Your task to perform on an android device: Search for usb-c to usb-a on target, select the first entry, add it to the cart, then select checkout. Image 0: 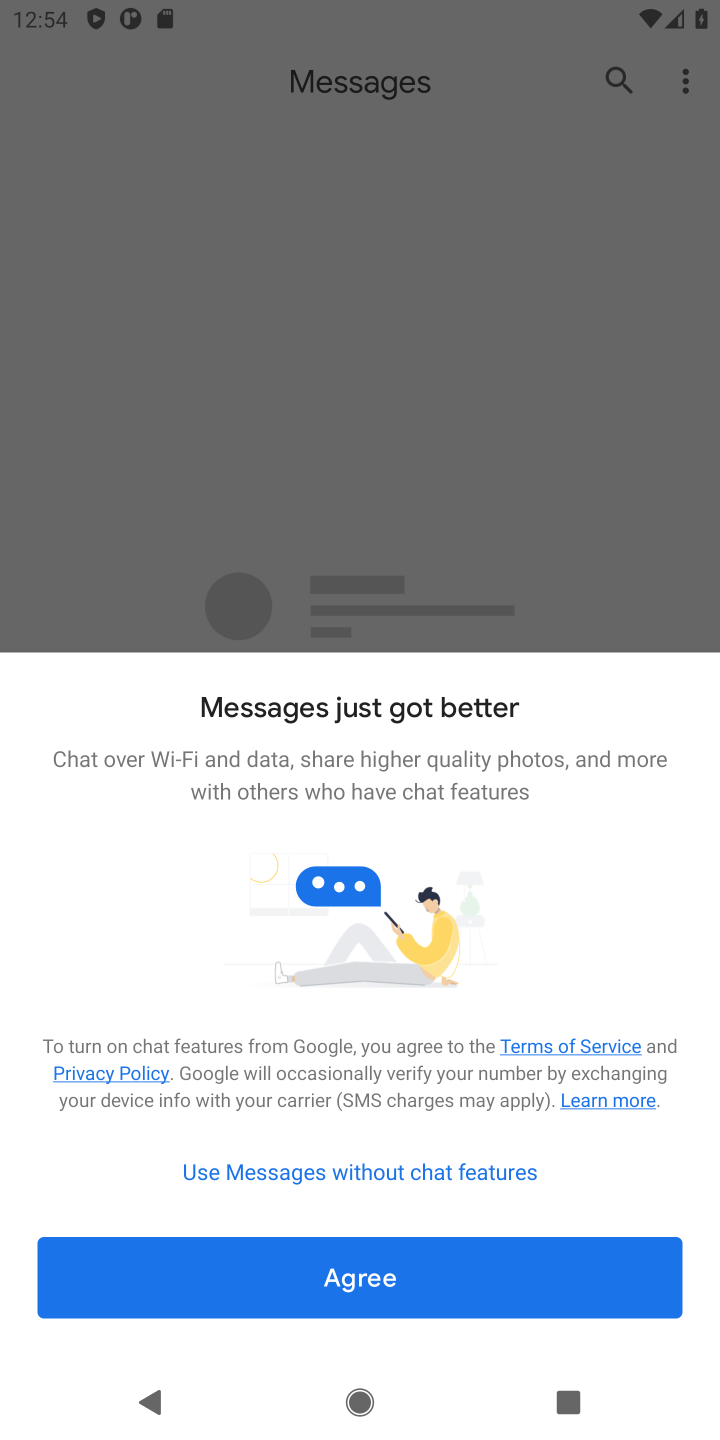
Step 0: press home button
Your task to perform on an android device: Search for usb-c to usb-a on target, select the first entry, add it to the cart, then select checkout. Image 1: 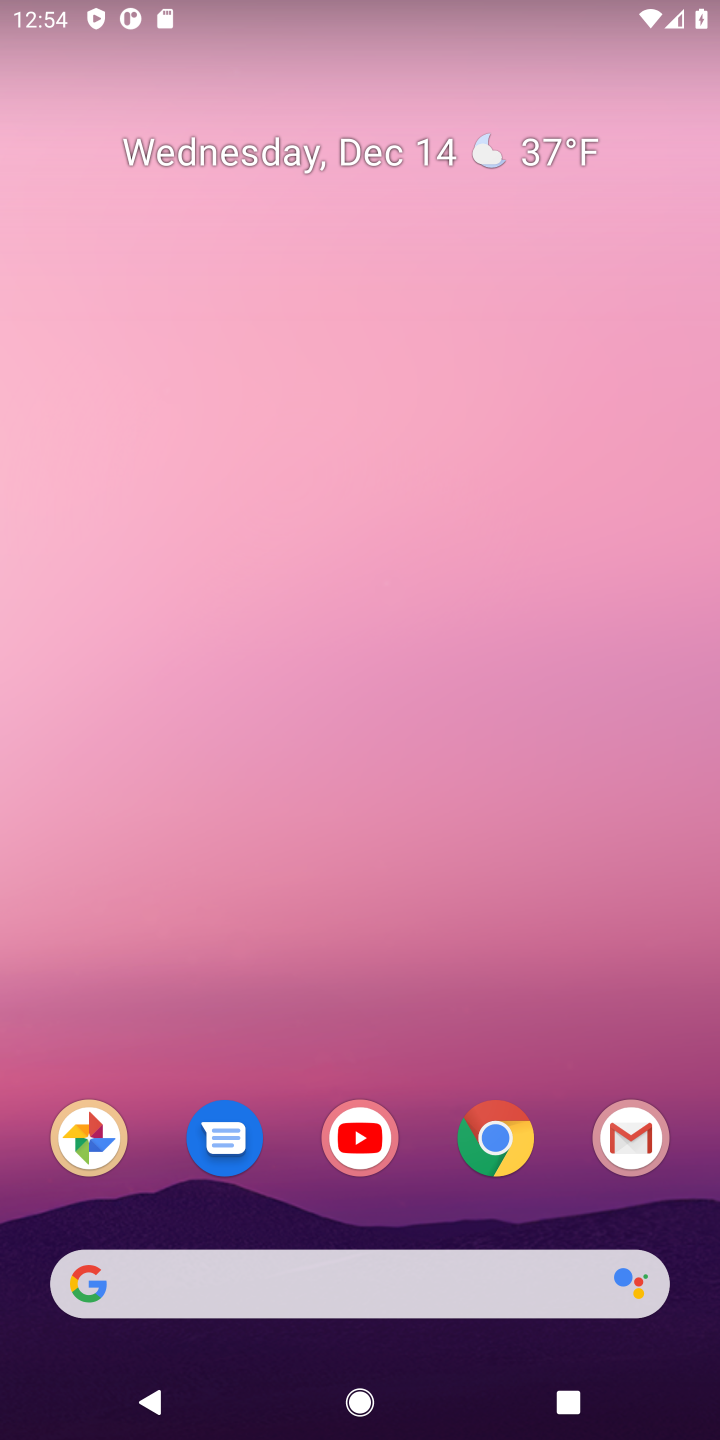
Step 1: click (504, 1147)
Your task to perform on an android device: Search for usb-c to usb-a on target, select the first entry, add it to the cart, then select checkout. Image 2: 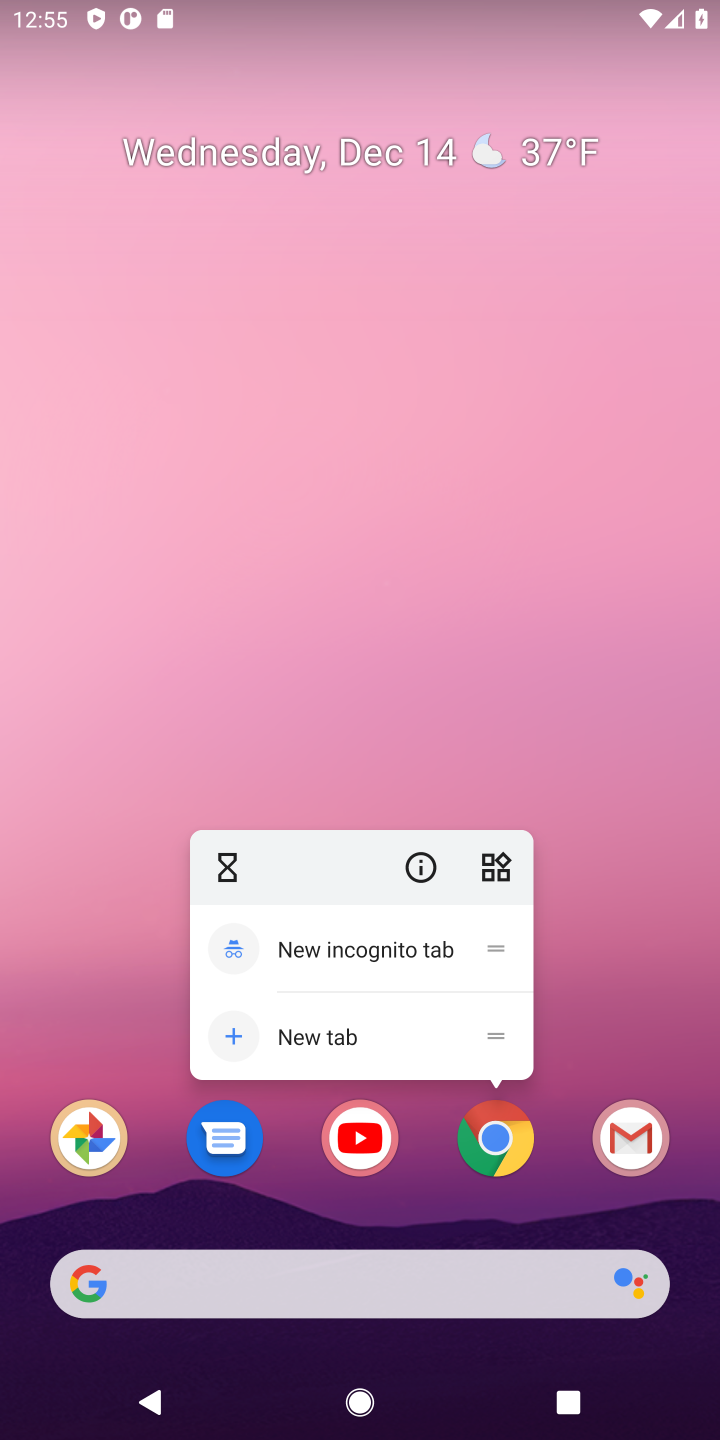
Step 2: click (504, 1147)
Your task to perform on an android device: Search for usb-c to usb-a on target, select the first entry, add it to the cart, then select checkout. Image 3: 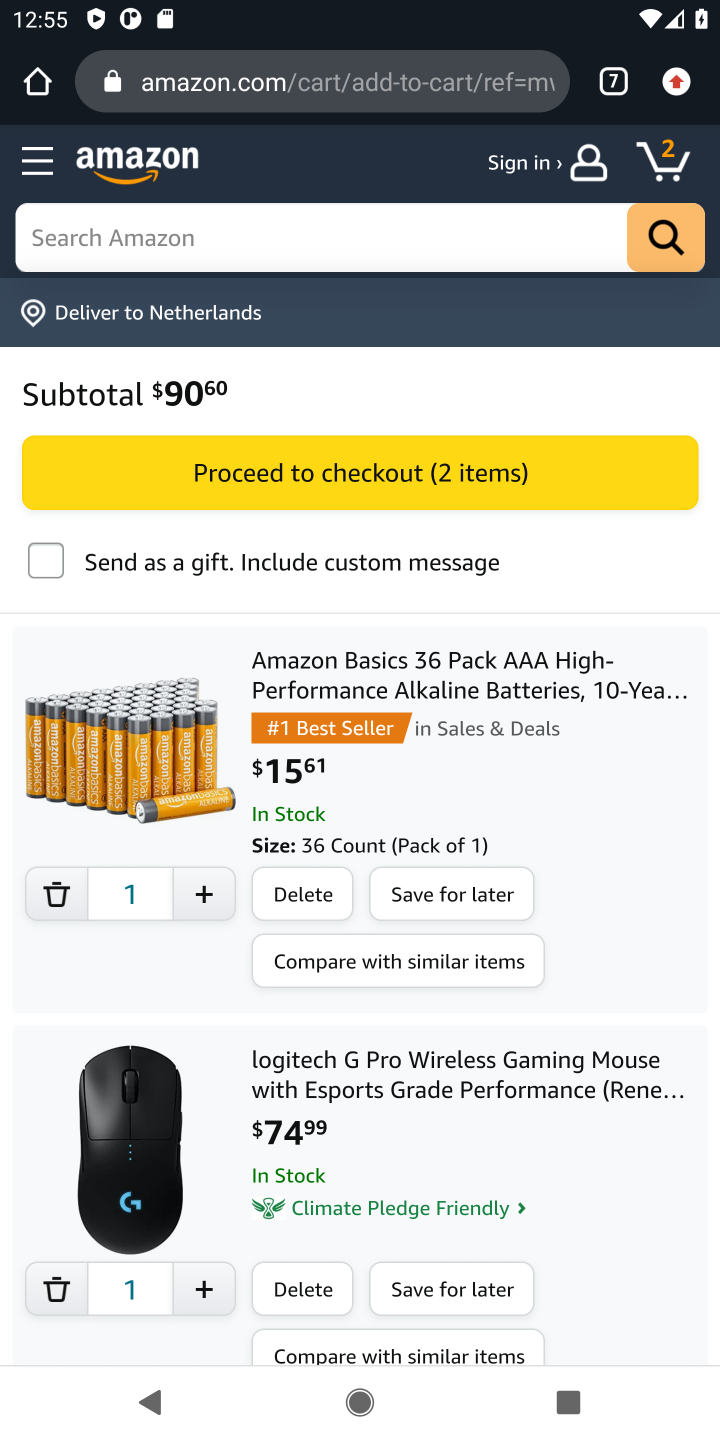
Step 3: click (618, 79)
Your task to perform on an android device: Search for usb-c to usb-a on target, select the first entry, add it to the cart, then select checkout. Image 4: 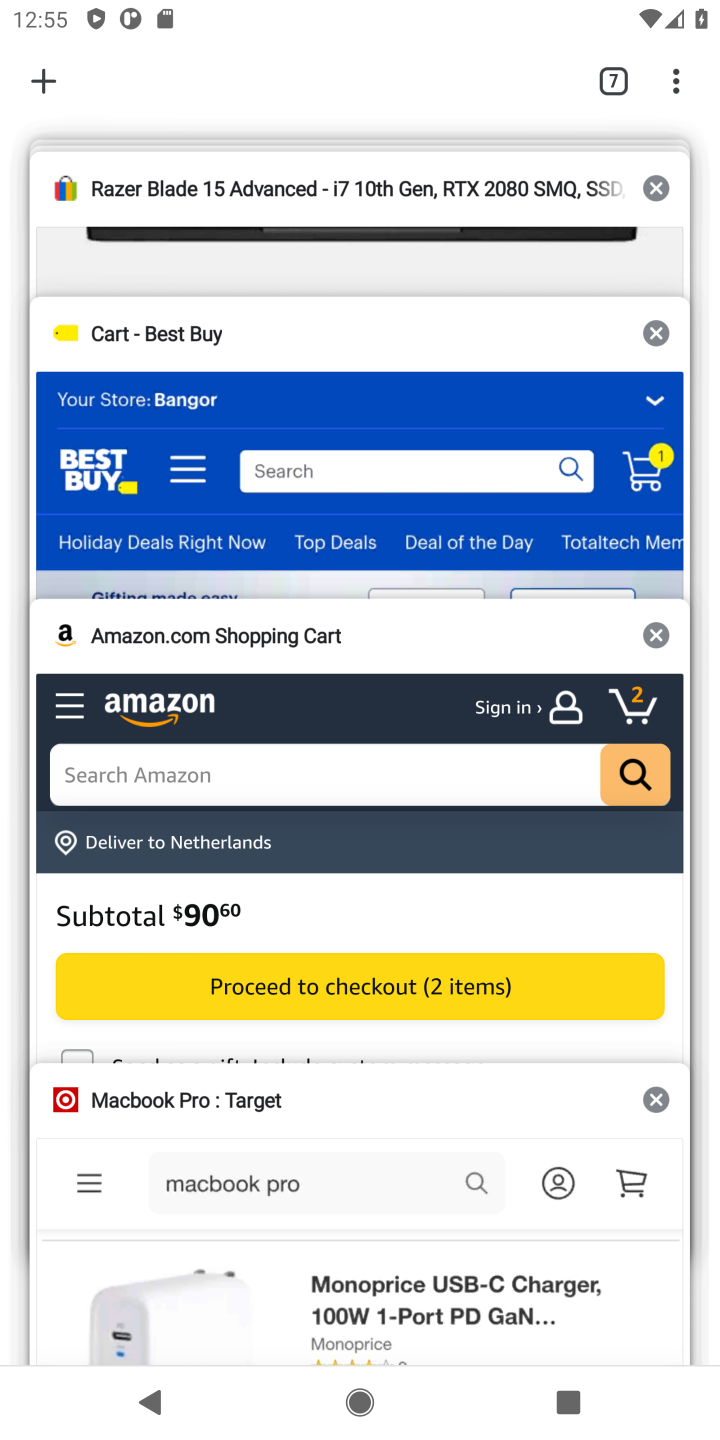
Step 4: click (364, 1285)
Your task to perform on an android device: Search for usb-c to usb-a on target, select the first entry, add it to the cart, then select checkout. Image 5: 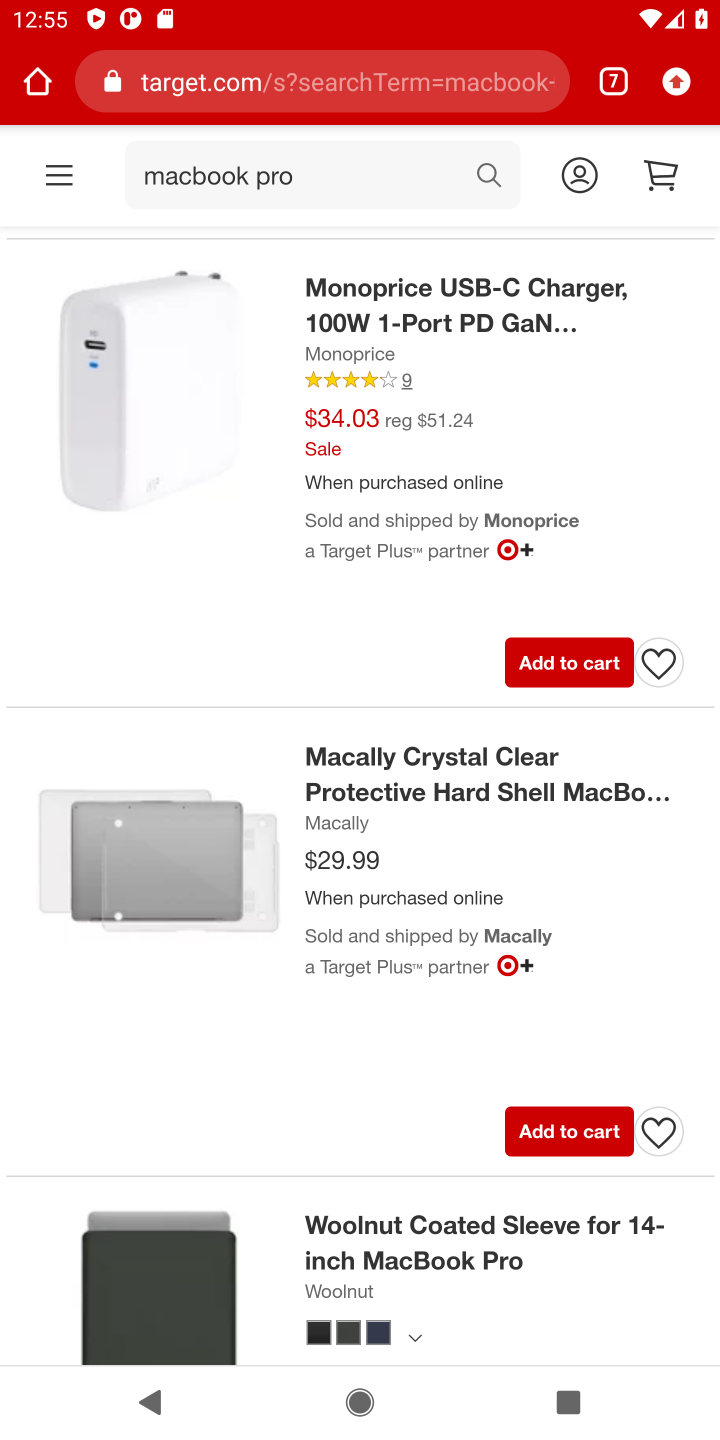
Step 5: click (341, 184)
Your task to perform on an android device: Search for usb-c to usb-a on target, select the first entry, add it to the cart, then select checkout. Image 6: 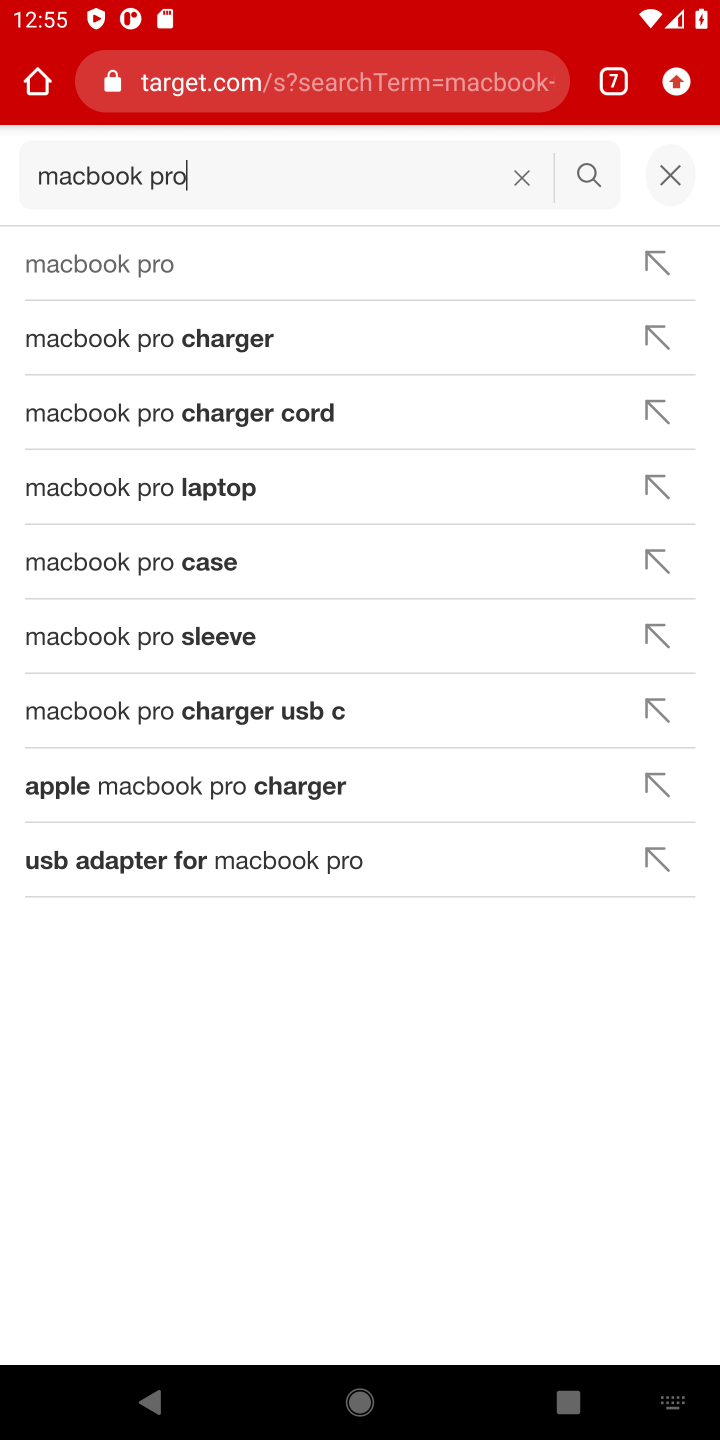
Step 6: click (522, 176)
Your task to perform on an android device: Search for usb-c to usb-a on target, select the first entry, add it to the cart, then select checkout. Image 7: 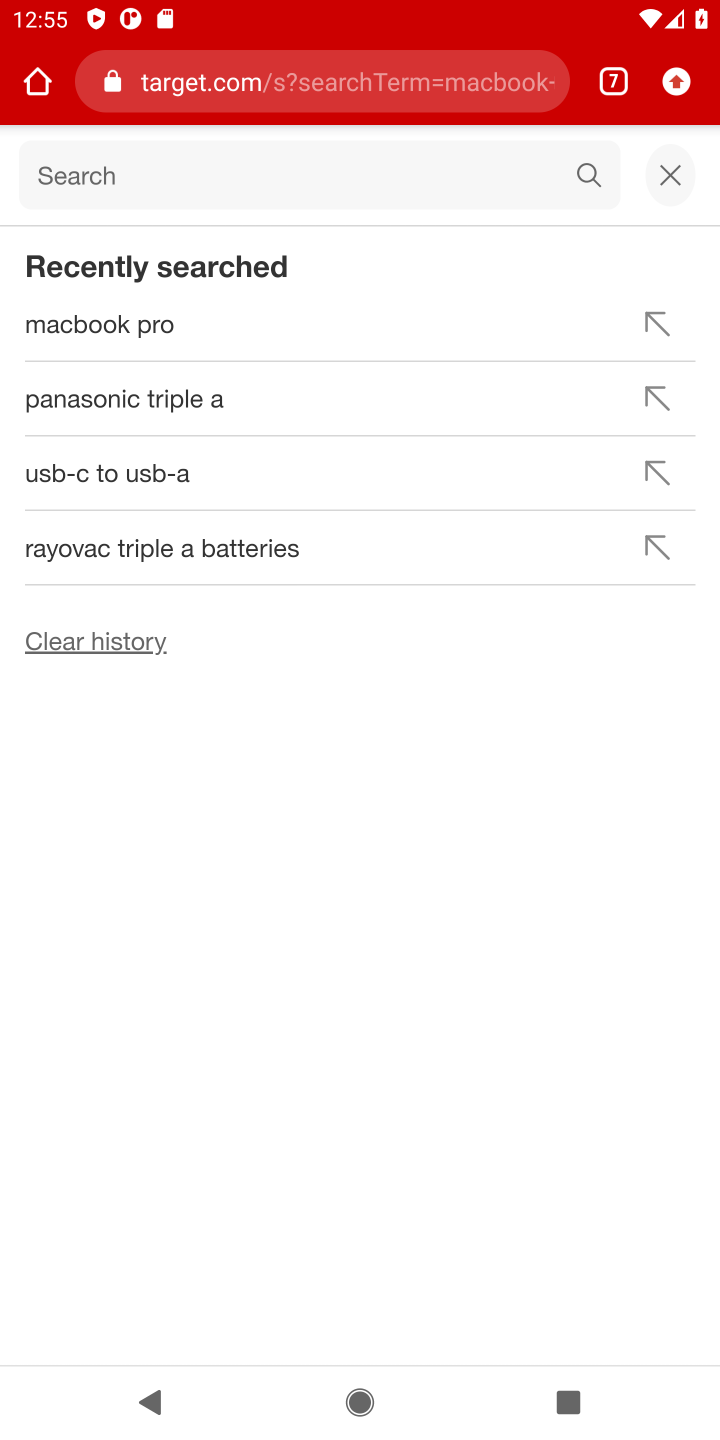
Step 7: type "usb-c to usb-a"
Your task to perform on an android device: Search for usb-c to usb-a on target, select the first entry, add it to the cart, then select checkout. Image 8: 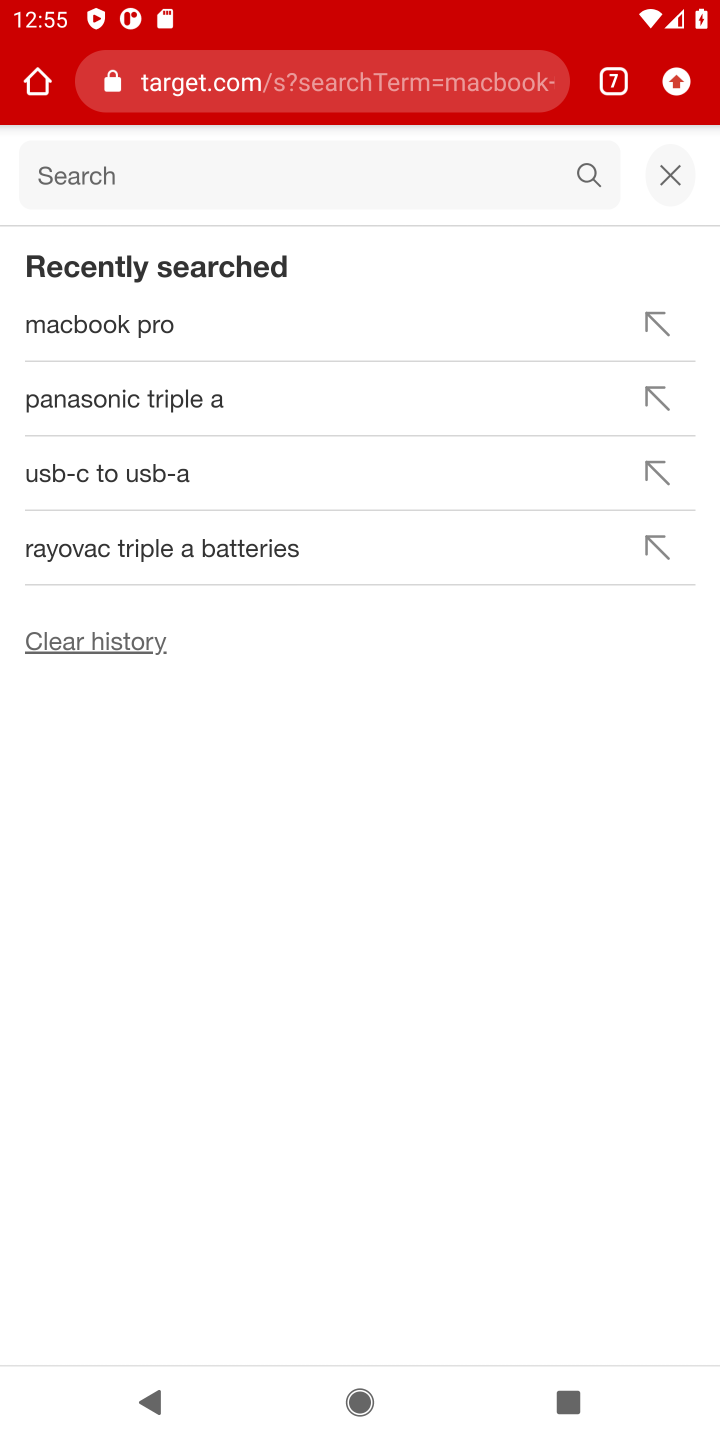
Step 8: click (152, 171)
Your task to perform on an android device: Search for usb-c to usb-a on target, select the first entry, add it to the cart, then select checkout. Image 9: 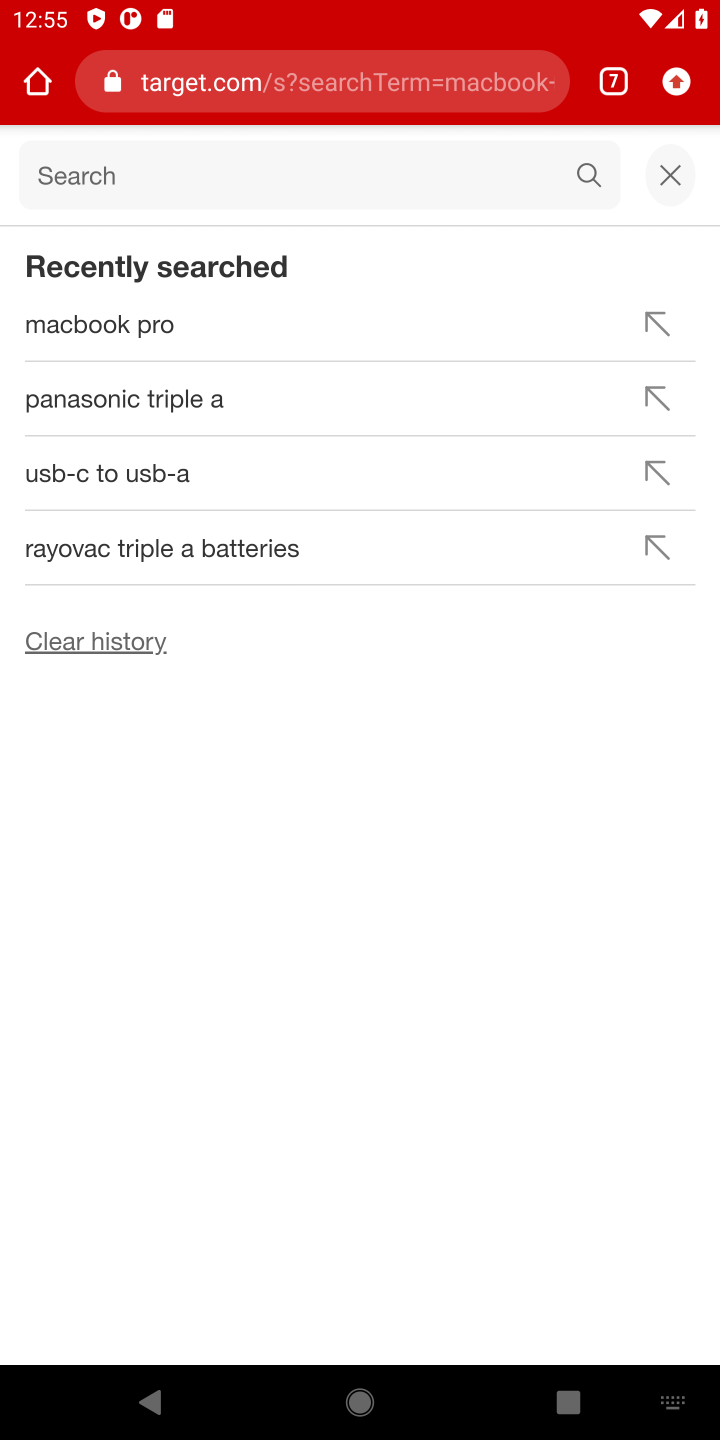
Step 9: type "usb-c to usb-a"
Your task to perform on an android device: Search for usb-c to usb-a on target, select the first entry, add it to the cart, then select checkout. Image 10: 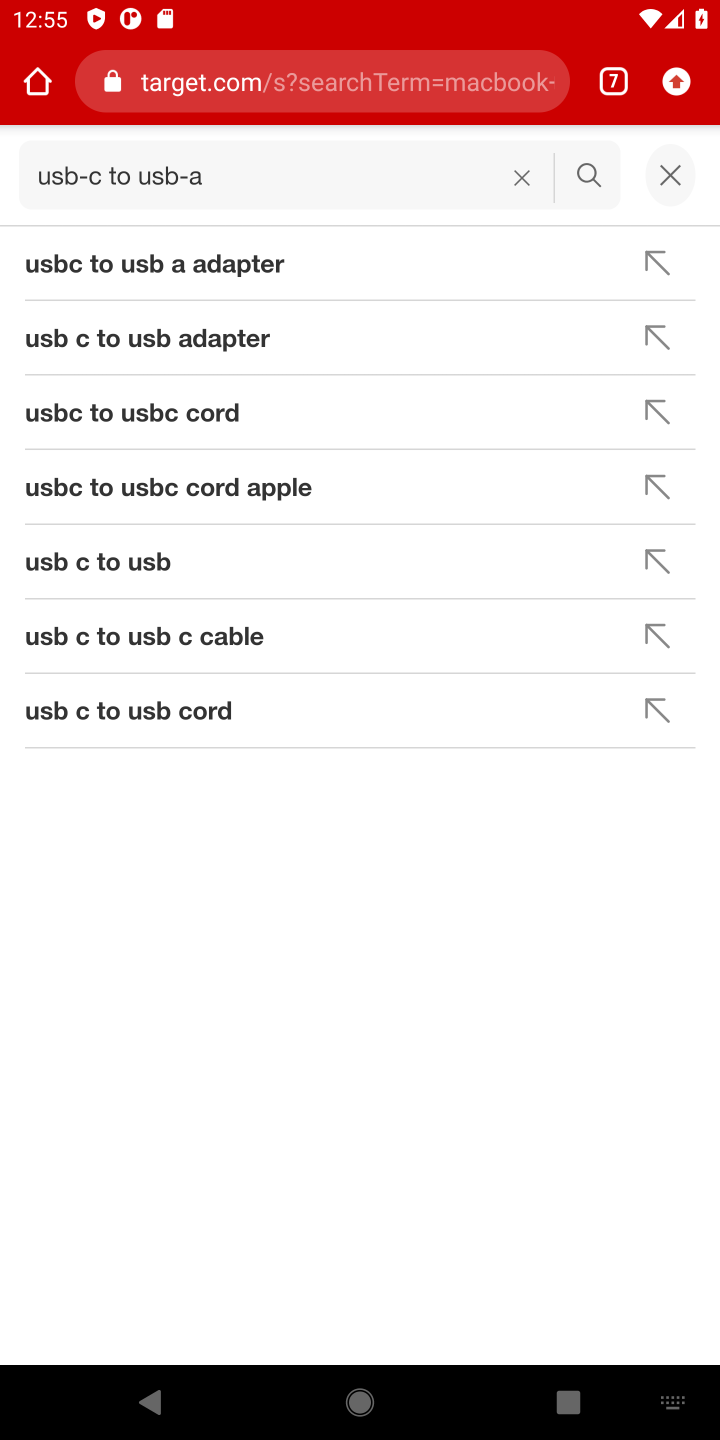
Step 10: click (583, 176)
Your task to perform on an android device: Search for usb-c to usb-a on target, select the first entry, add it to the cart, then select checkout. Image 11: 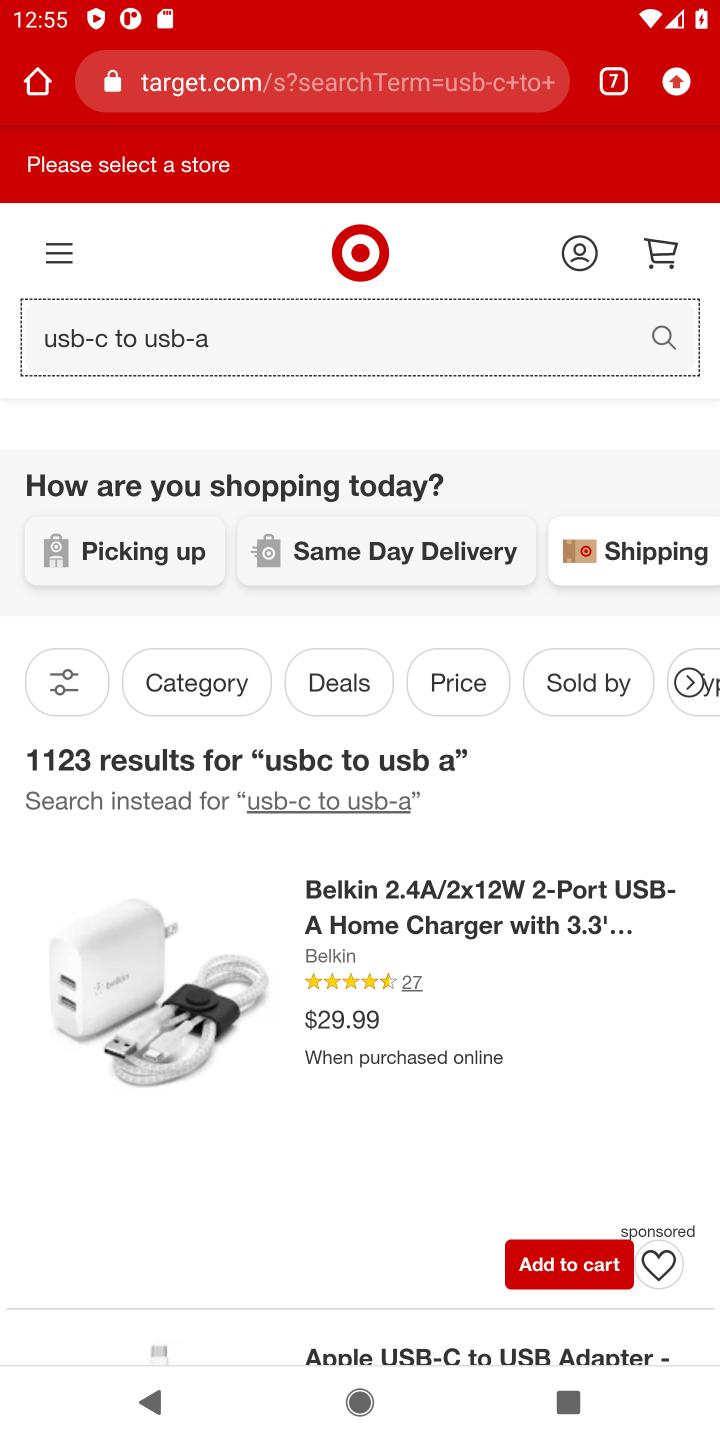
Step 11: click (575, 1251)
Your task to perform on an android device: Search for usb-c to usb-a on target, select the first entry, add it to the cart, then select checkout. Image 12: 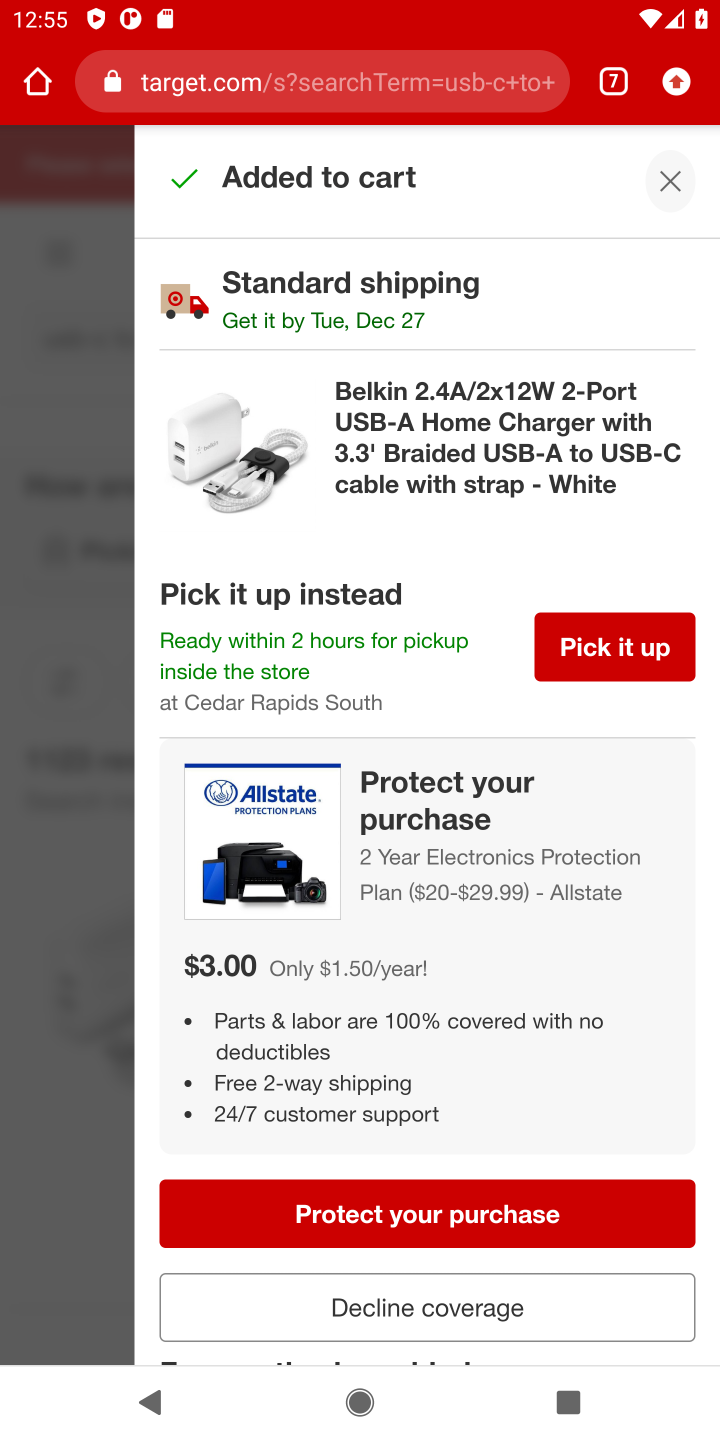
Step 12: task complete